Your task to perform on an android device: see creations saved in the google photos Image 0: 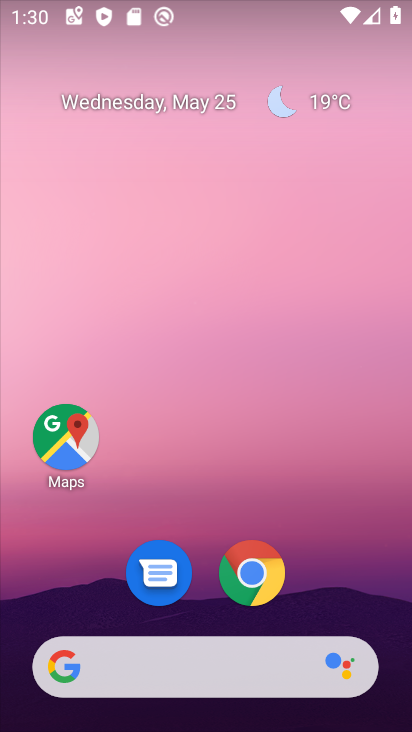
Step 0: drag from (389, 608) to (345, 93)
Your task to perform on an android device: see creations saved in the google photos Image 1: 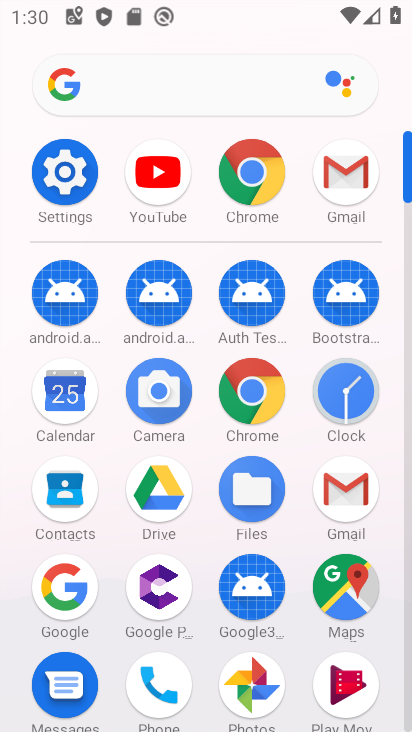
Step 1: click (406, 685)
Your task to perform on an android device: see creations saved in the google photos Image 2: 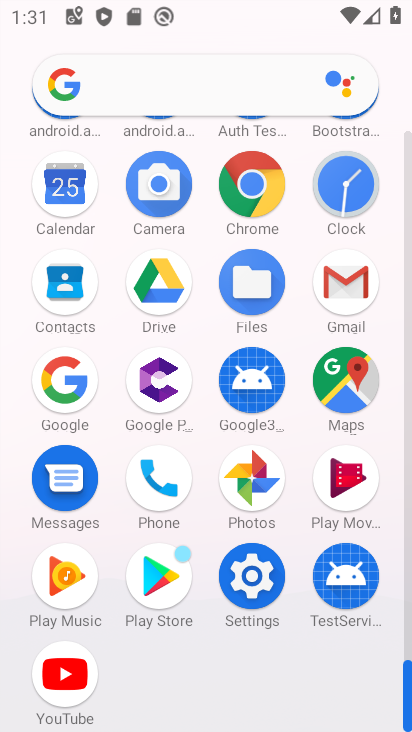
Step 2: click (251, 473)
Your task to perform on an android device: see creations saved in the google photos Image 3: 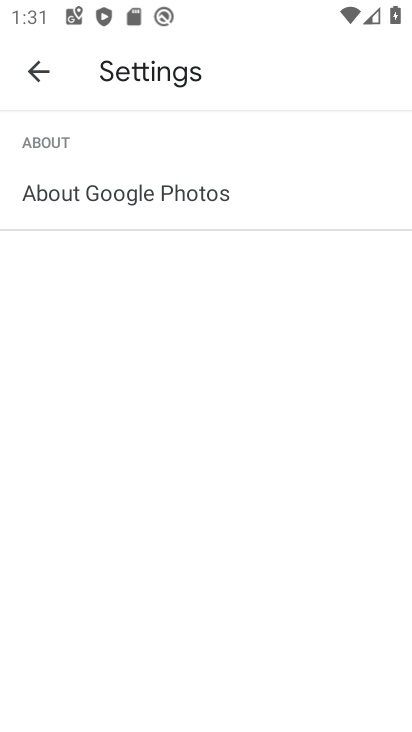
Step 3: task complete